Your task to perform on an android device: Go to accessibility settings Image 0: 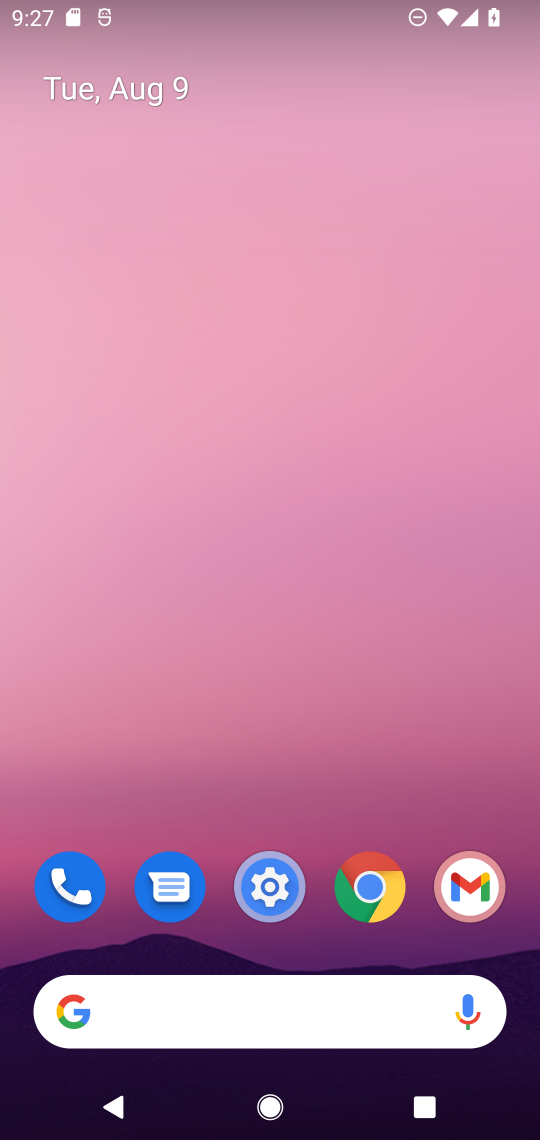
Step 0: click (277, 864)
Your task to perform on an android device: Go to accessibility settings Image 1: 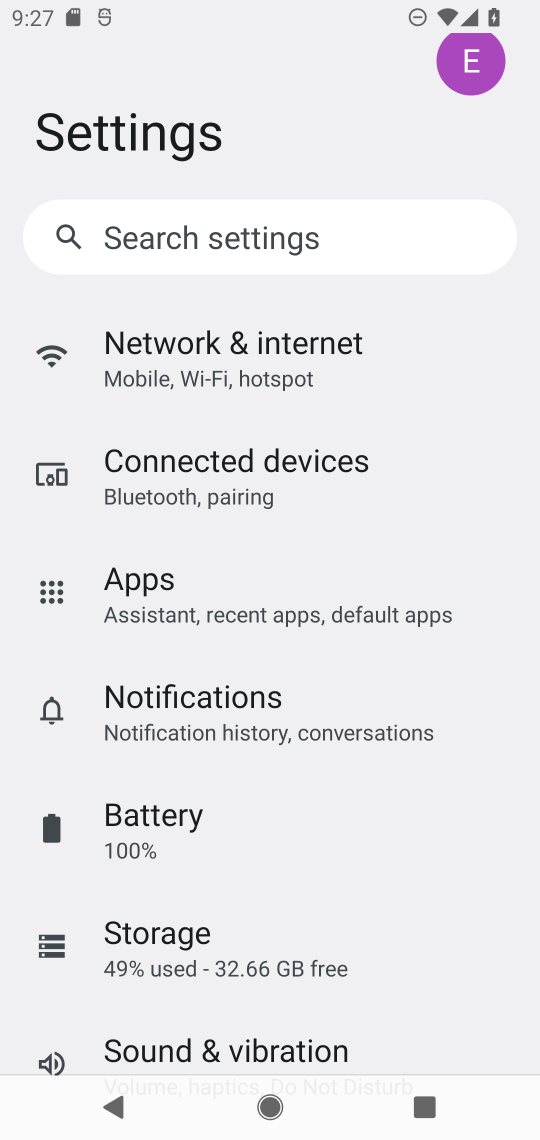
Step 1: drag from (309, 879) to (294, 330)
Your task to perform on an android device: Go to accessibility settings Image 2: 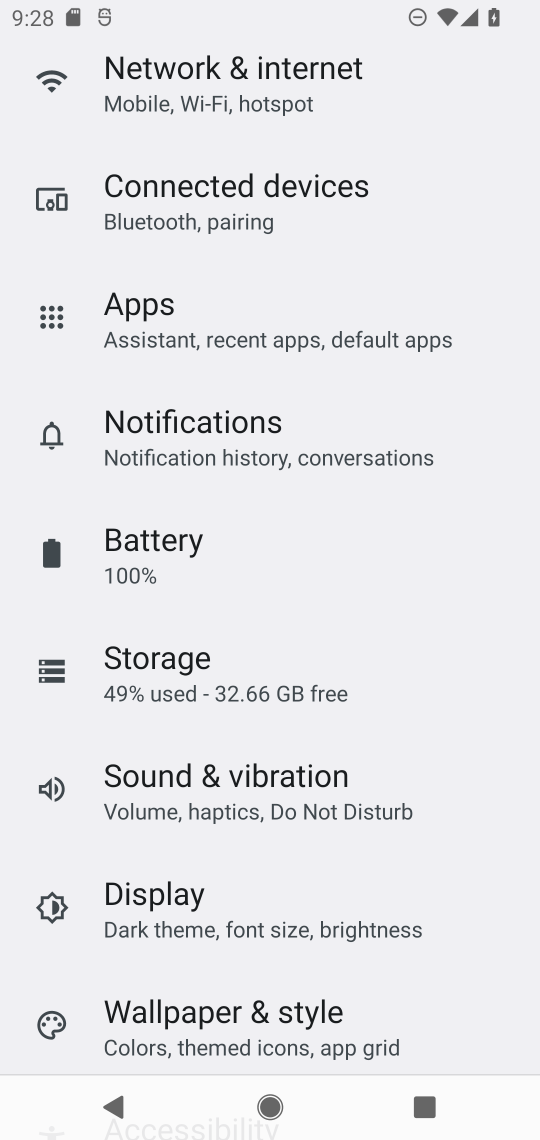
Step 2: drag from (323, 800) to (323, 344)
Your task to perform on an android device: Go to accessibility settings Image 3: 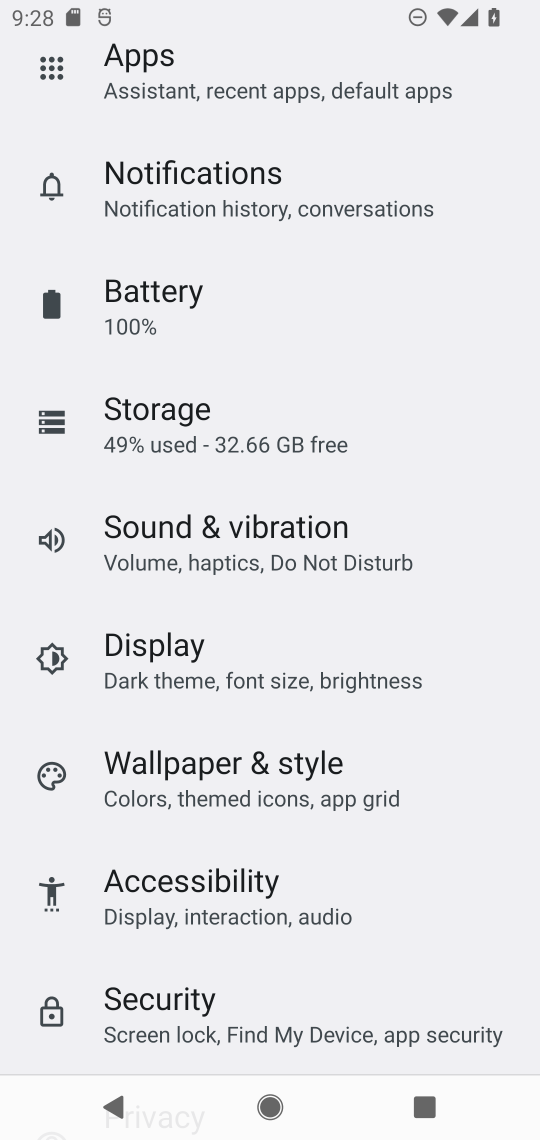
Step 3: click (319, 874)
Your task to perform on an android device: Go to accessibility settings Image 4: 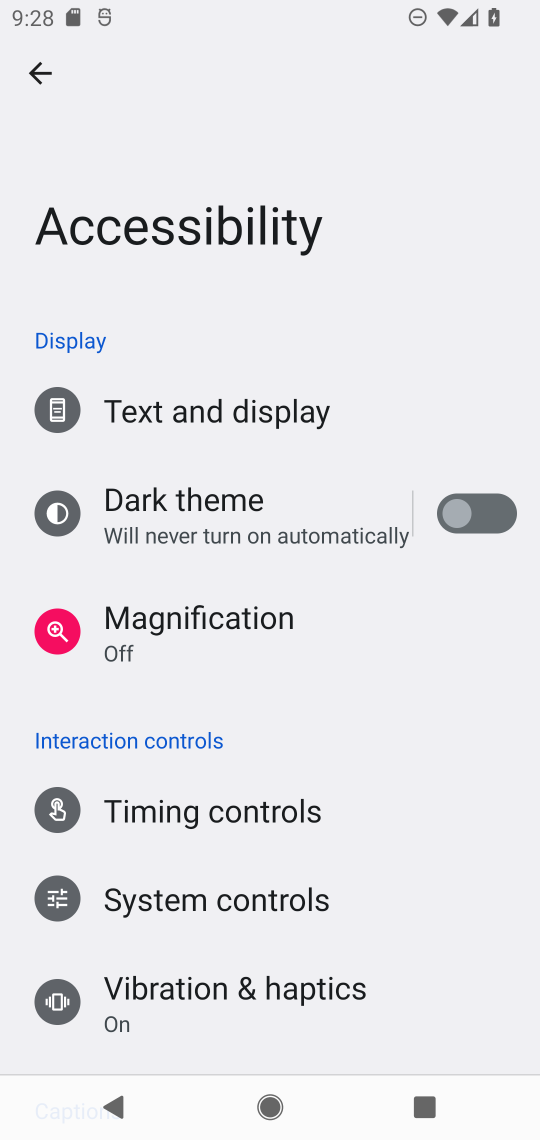
Step 4: task complete